Your task to perform on an android device: turn on improve location accuracy Image 0: 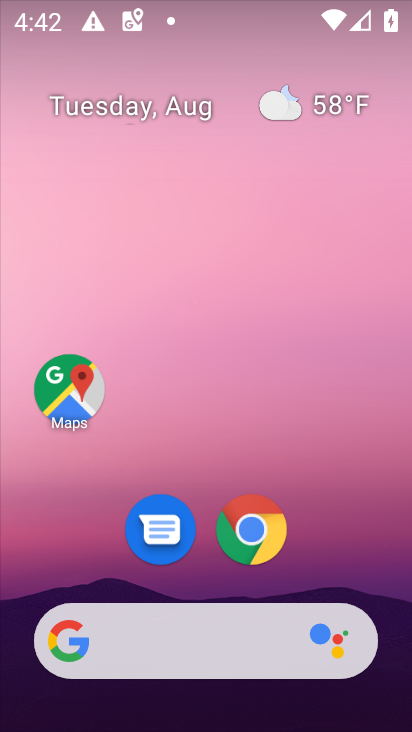
Step 0: drag from (213, 475) to (262, 70)
Your task to perform on an android device: turn on improve location accuracy Image 1: 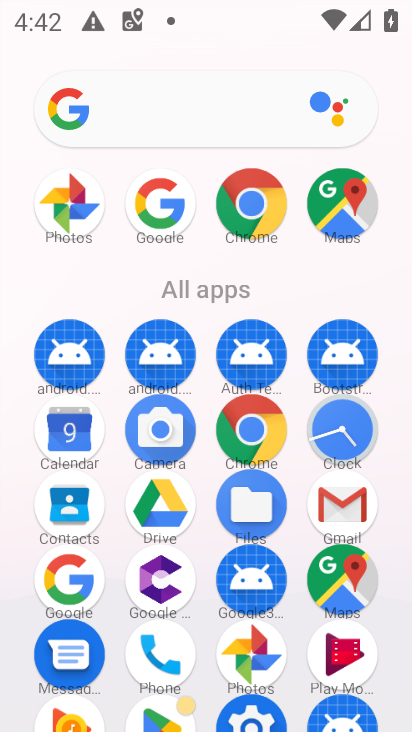
Step 1: drag from (132, 480) to (158, 200)
Your task to perform on an android device: turn on improve location accuracy Image 2: 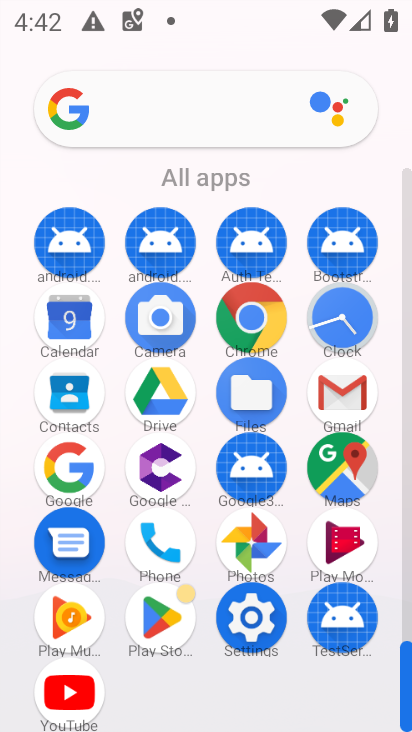
Step 2: click (257, 619)
Your task to perform on an android device: turn on improve location accuracy Image 3: 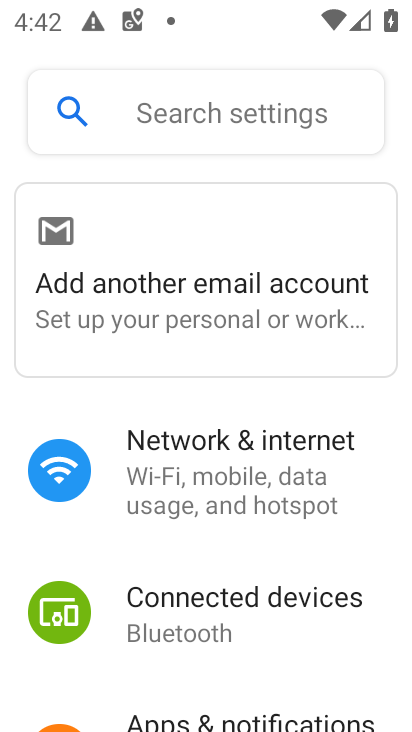
Step 3: drag from (236, 540) to (258, 215)
Your task to perform on an android device: turn on improve location accuracy Image 4: 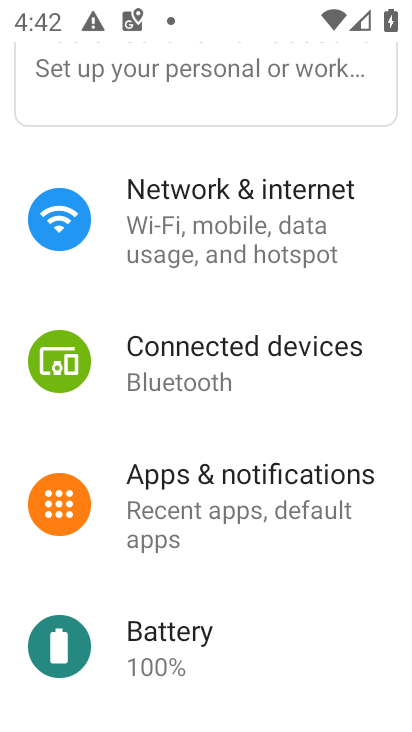
Step 4: drag from (244, 428) to (265, 235)
Your task to perform on an android device: turn on improve location accuracy Image 5: 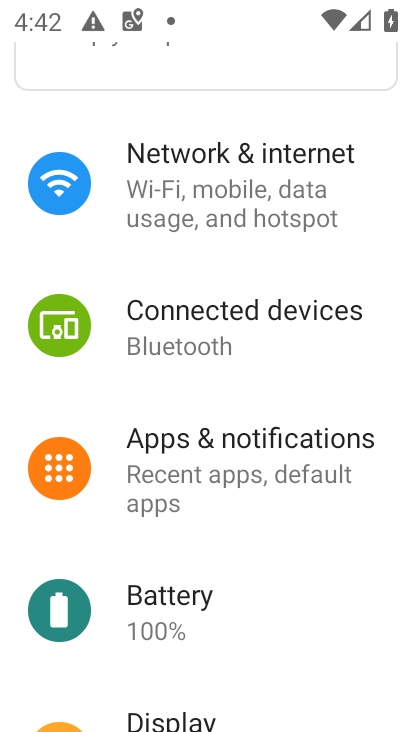
Step 5: drag from (222, 576) to (234, 228)
Your task to perform on an android device: turn on improve location accuracy Image 6: 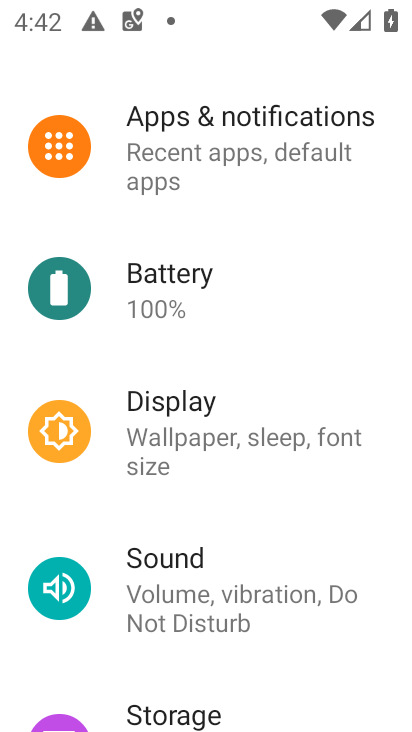
Step 6: drag from (234, 514) to (294, 183)
Your task to perform on an android device: turn on improve location accuracy Image 7: 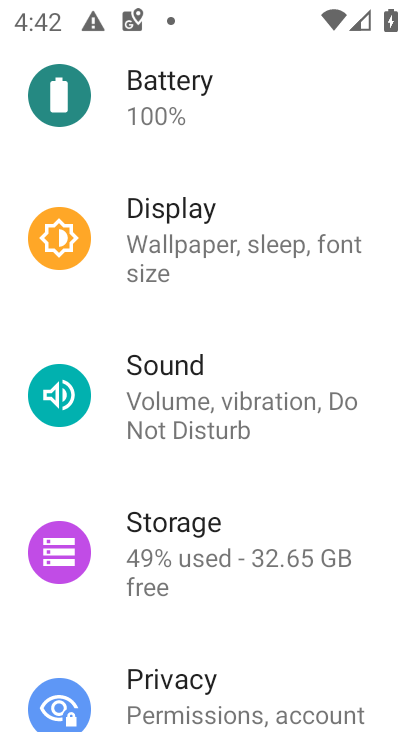
Step 7: drag from (263, 483) to (298, 204)
Your task to perform on an android device: turn on improve location accuracy Image 8: 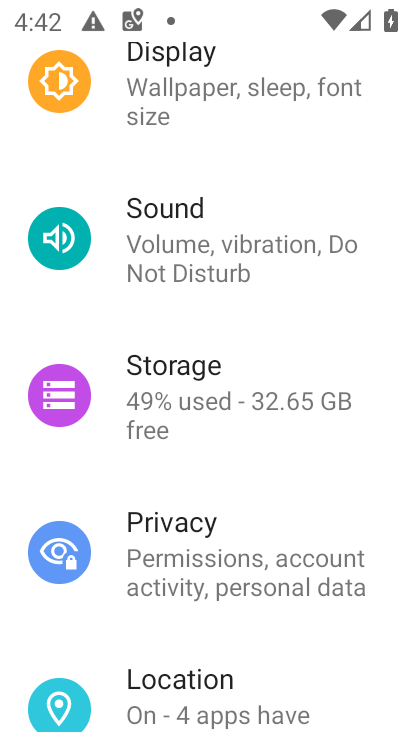
Step 8: drag from (247, 576) to (259, 213)
Your task to perform on an android device: turn on improve location accuracy Image 9: 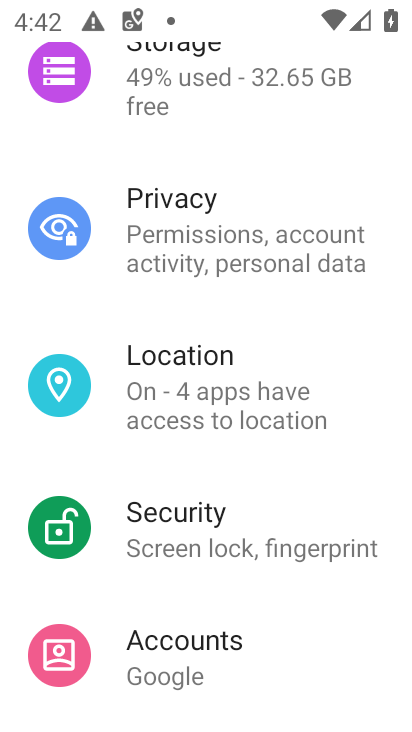
Step 9: click (185, 405)
Your task to perform on an android device: turn on improve location accuracy Image 10: 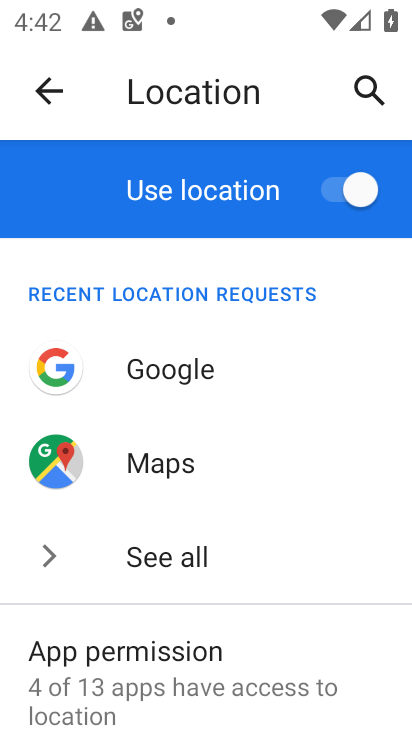
Step 10: drag from (255, 578) to (255, 183)
Your task to perform on an android device: turn on improve location accuracy Image 11: 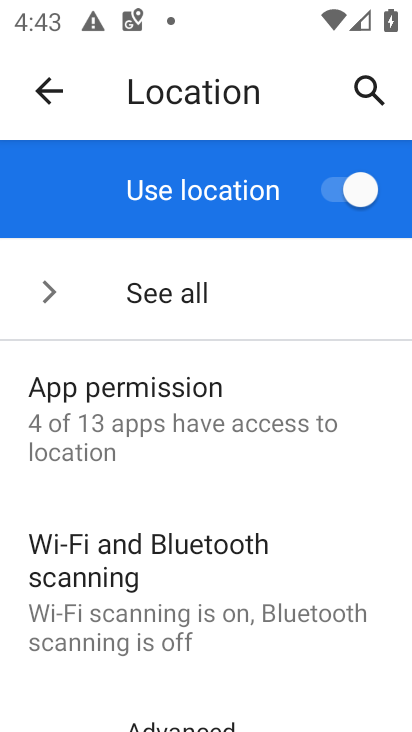
Step 11: click (242, 178)
Your task to perform on an android device: turn on improve location accuracy Image 12: 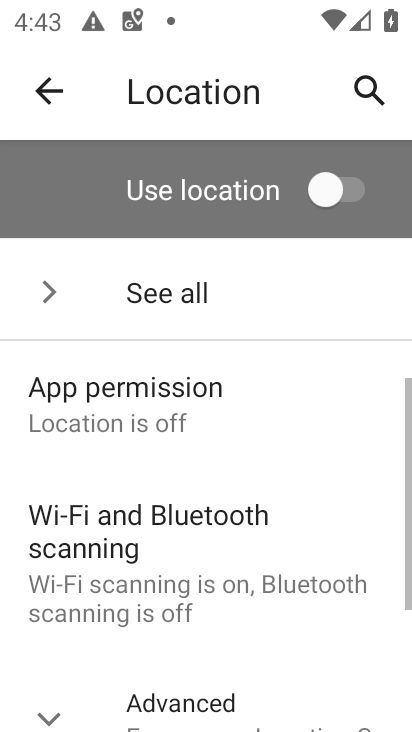
Step 12: drag from (253, 564) to (246, 222)
Your task to perform on an android device: turn on improve location accuracy Image 13: 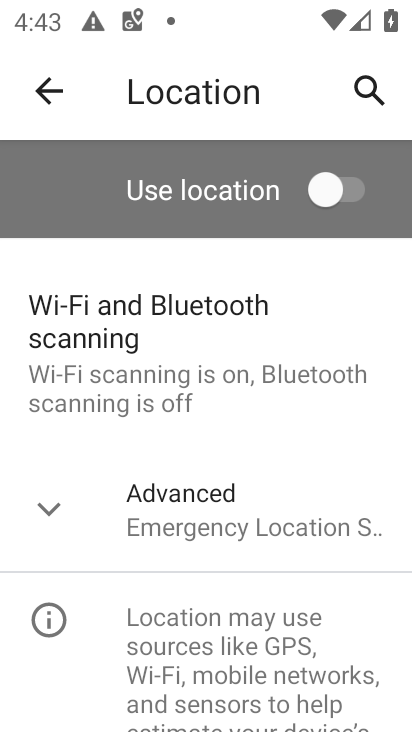
Step 13: click (197, 504)
Your task to perform on an android device: turn on improve location accuracy Image 14: 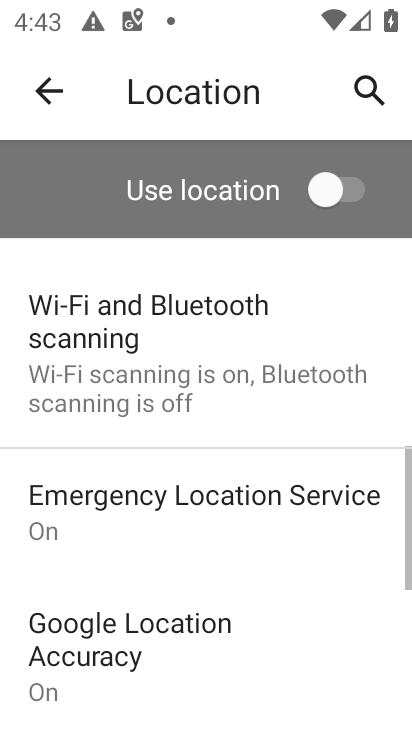
Step 14: drag from (227, 593) to (227, 284)
Your task to perform on an android device: turn on improve location accuracy Image 15: 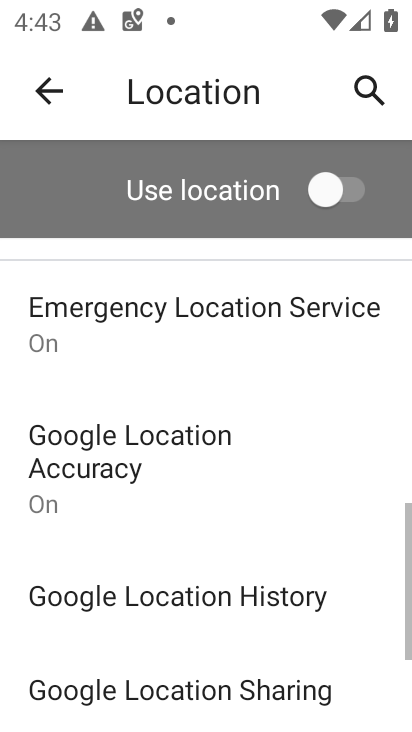
Step 15: drag from (213, 503) to (213, 429)
Your task to perform on an android device: turn on improve location accuracy Image 16: 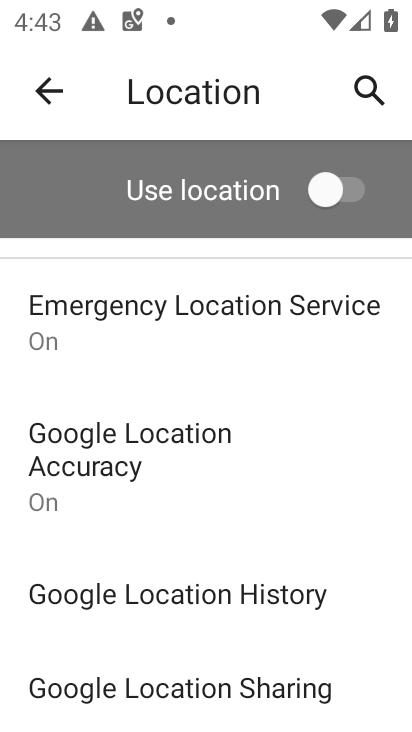
Step 16: click (144, 462)
Your task to perform on an android device: turn on improve location accuracy Image 17: 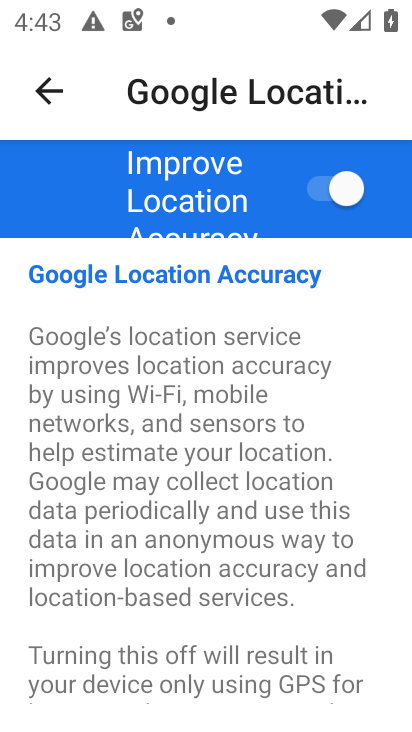
Step 17: task complete